Your task to perform on an android device: Open Yahoo.com Image 0: 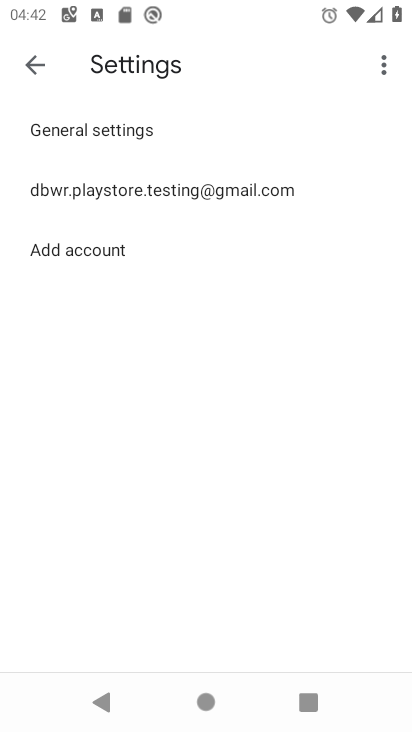
Step 0: press home button
Your task to perform on an android device: Open Yahoo.com Image 1: 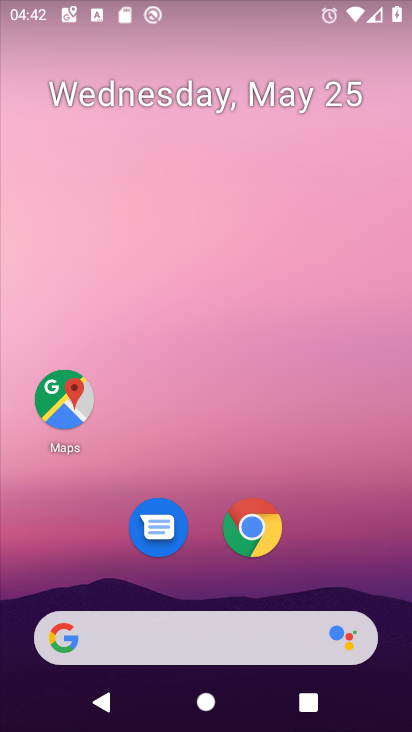
Step 1: drag from (194, 466) to (241, 41)
Your task to perform on an android device: Open Yahoo.com Image 2: 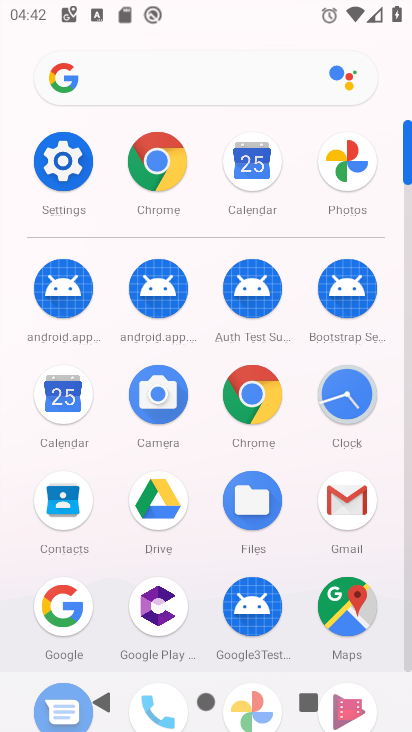
Step 2: click (148, 162)
Your task to perform on an android device: Open Yahoo.com Image 3: 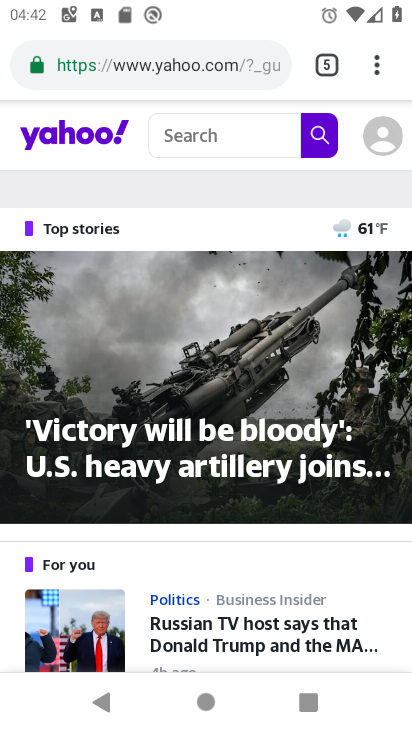
Step 3: click (329, 63)
Your task to perform on an android device: Open Yahoo.com Image 4: 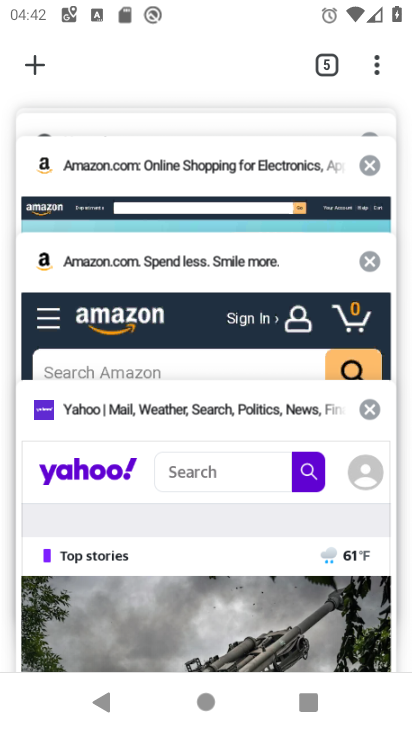
Step 4: click (35, 61)
Your task to perform on an android device: Open Yahoo.com Image 5: 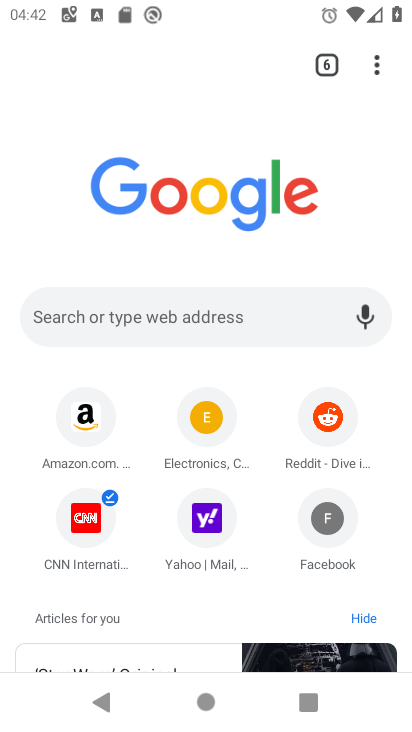
Step 5: click (197, 299)
Your task to perform on an android device: Open Yahoo.com Image 6: 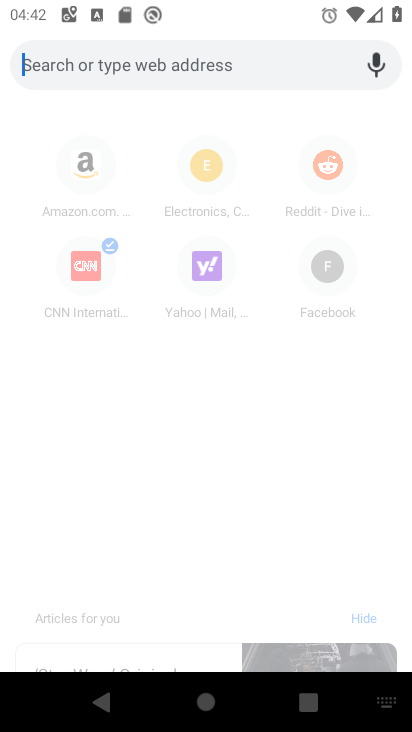
Step 6: type "yahoo.com"
Your task to perform on an android device: Open Yahoo.com Image 7: 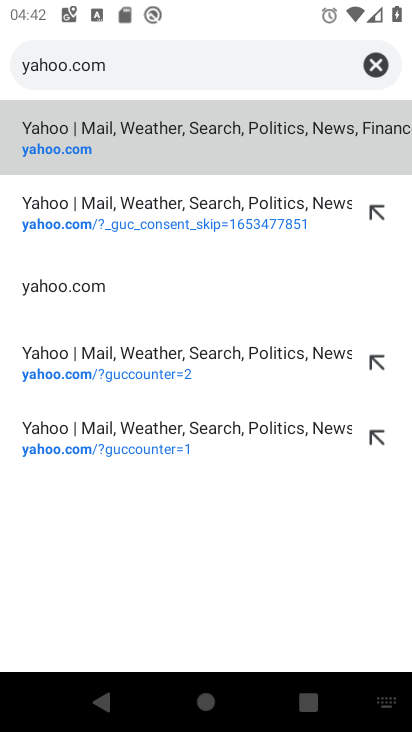
Step 7: click (110, 294)
Your task to perform on an android device: Open Yahoo.com Image 8: 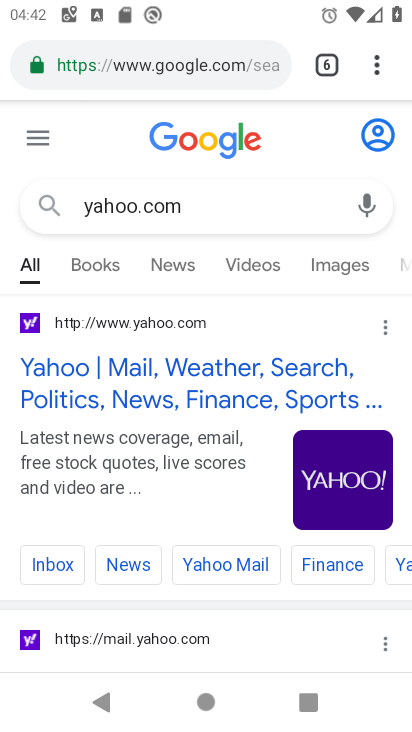
Step 8: click (164, 387)
Your task to perform on an android device: Open Yahoo.com Image 9: 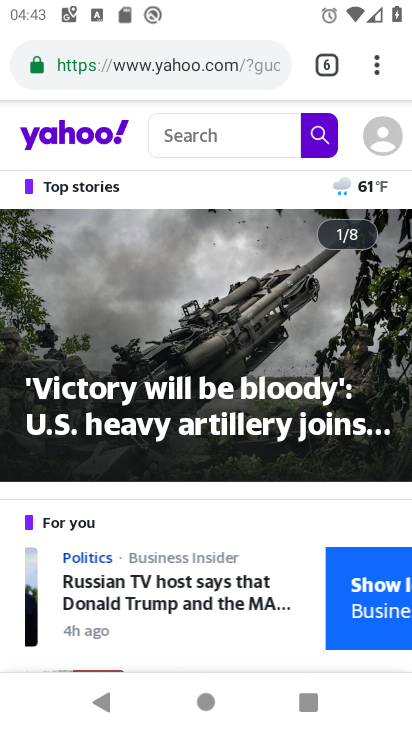
Step 9: task complete